Your task to perform on an android device: Open settings on Google Maps Image 0: 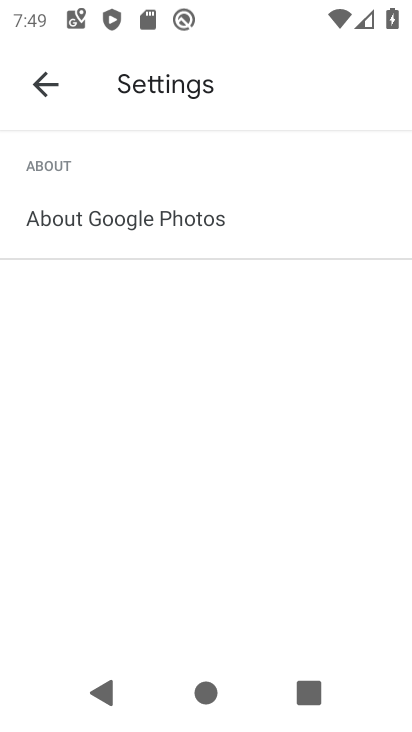
Step 0: press home button
Your task to perform on an android device: Open settings on Google Maps Image 1: 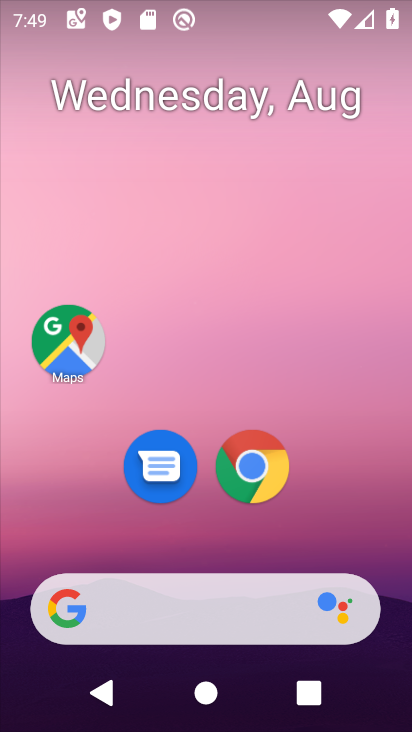
Step 1: drag from (363, 531) to (318, 174)
Your task to perform on an android device: Open settings on Google Maps Image 2: 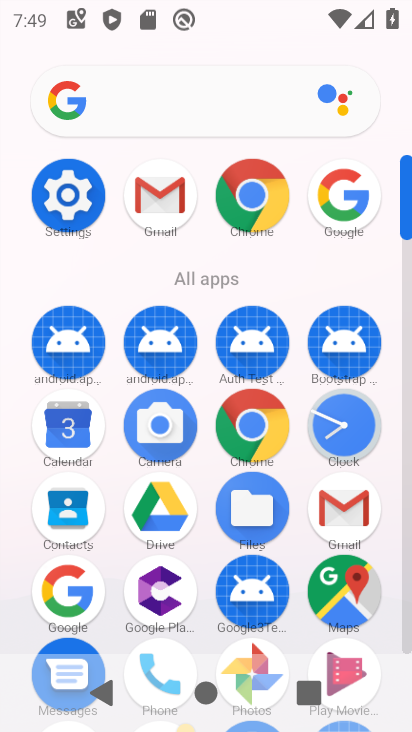
Step 2: click (349, 600)
Your task to perform on an android device: Open settings on Google Maps Image 3: 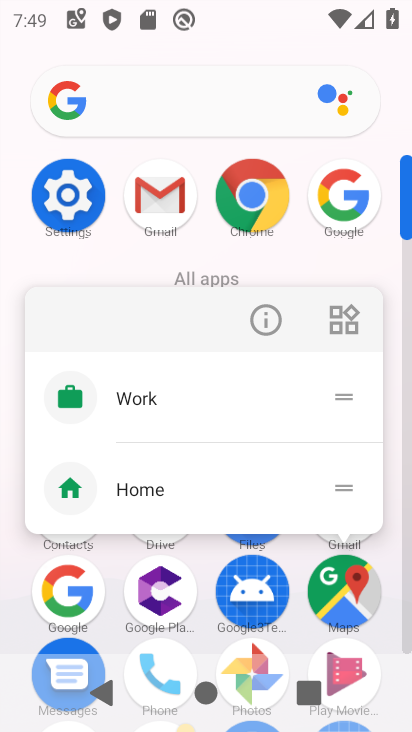
Step 3: click (349, 591)
Your task to perform on an android device: Open settings on Google Maps Image 4: 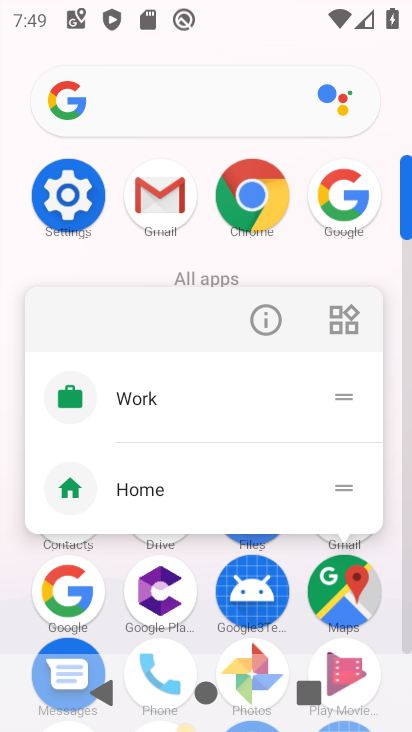
Step 4: click (328, 588)
Your task to perform on an android device: Open settings on Google Maps Image 5: 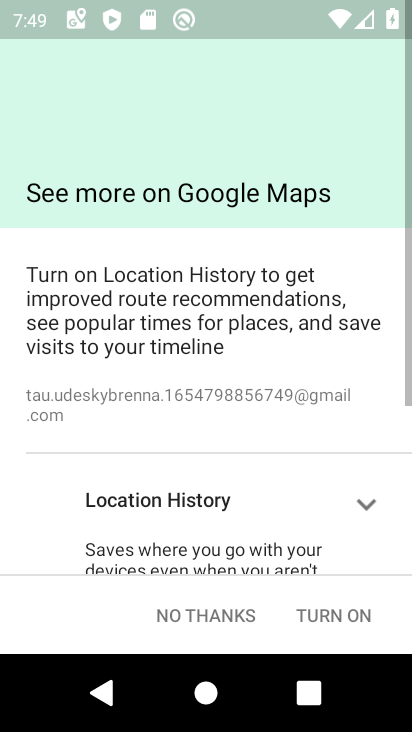
Step 5: press back button
Your task to perform on an android device: Open settings on Google Maps Image 6: 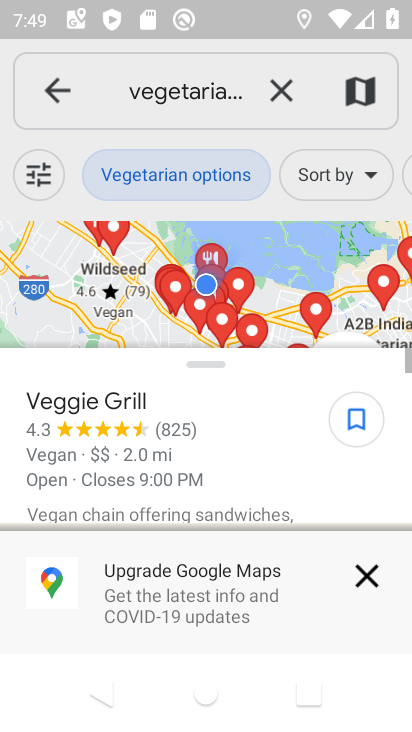
Step 6: press back button
Your task to perform on an android device: Open settings on Google Maps Image 7: 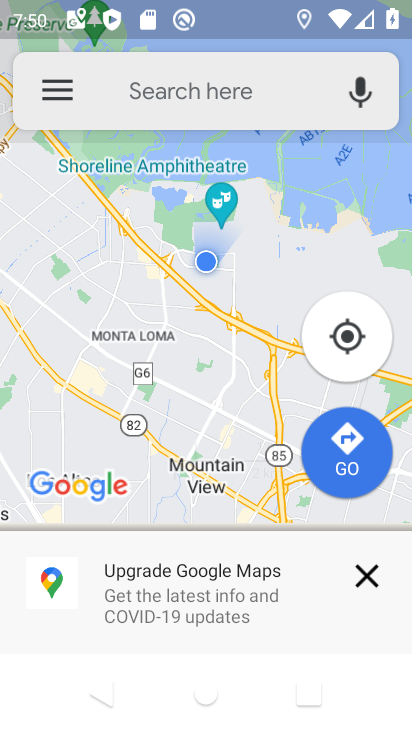
Step 7: click (48, 103)
Your task to perform on an android device: Open settings on Google Maps Image 8: 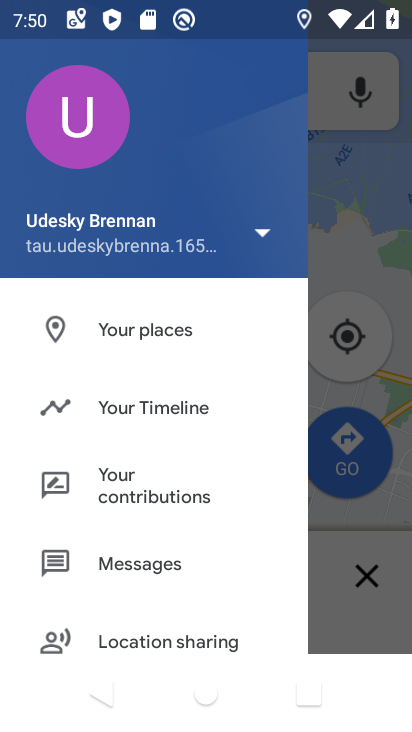
Step 8: drag from (187, 574) to (187, 137)
Your task to perform on an android device: Open settings on Google Maps Image 9: 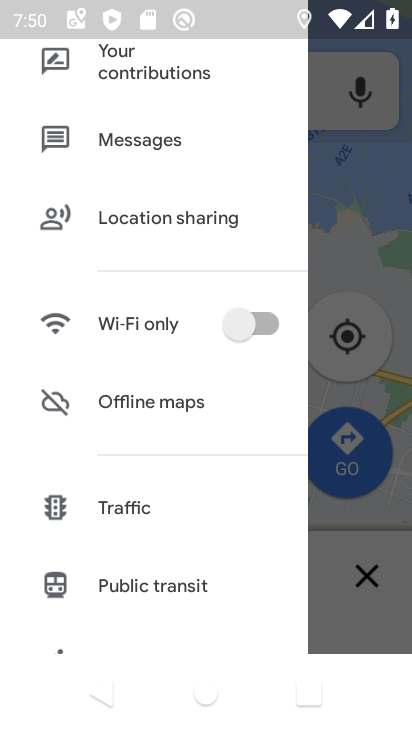
Step 9: drag from (233, 520) to (226, 198)
Your task to perform on an android device: Open settings on Google Maps Image 10: 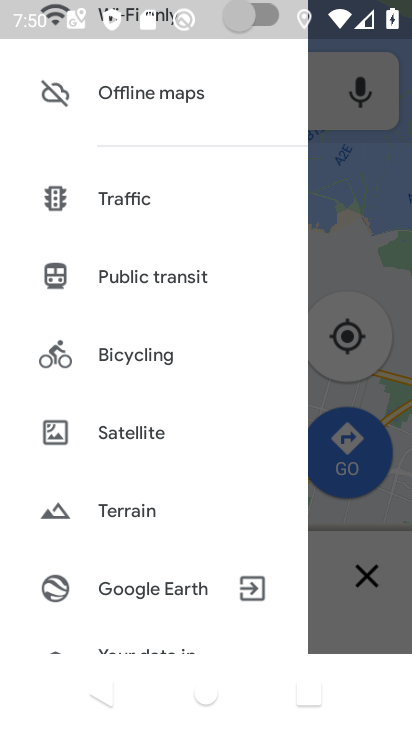
Step 10: drag from (166, 573) to (226, 325)
Your task to perform on an android device: Open settings on Google Maps Image 11: 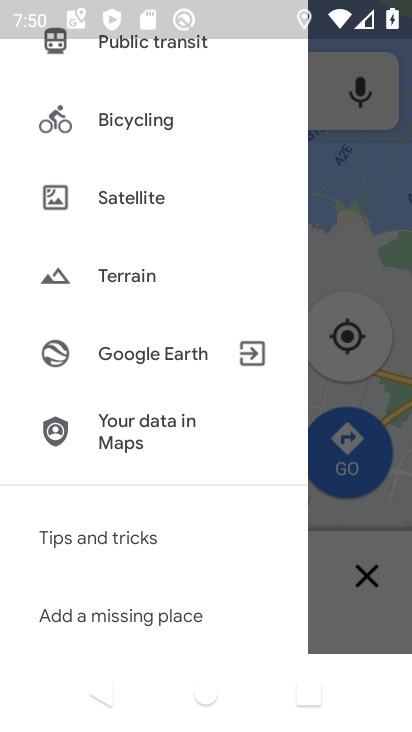
Step 11: drag from (144, 577) to (211, 346)
Your task to perform on an android device: Open settings on Google Maps Image 12: 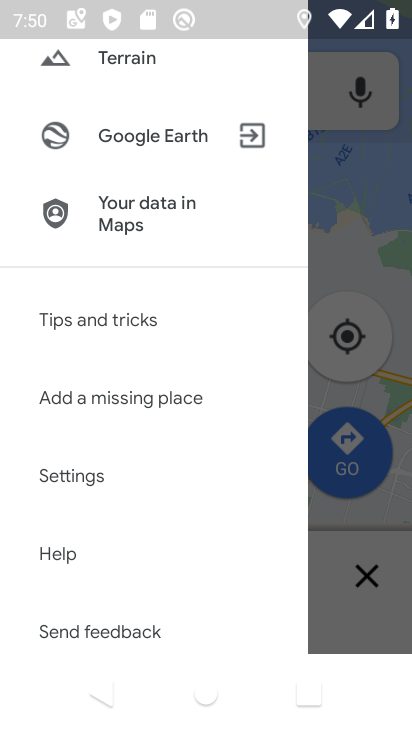
Step 12: click (62, 471)
Your task to perform on an android device: Open settings on Google Maps Image 13: 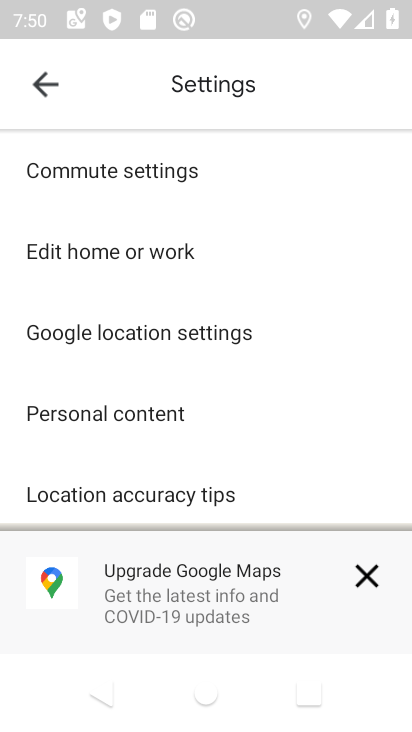
Step 13: task complete